Your task to perform on an android device: see tabs open on other devices in the chrome app Image 0: 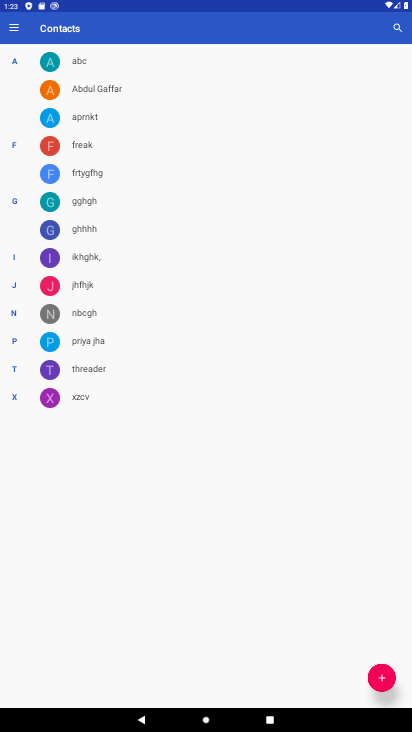
Step 0: press home button
Your task to perform on an android device: see tabs open on other devices in the chrome app Image 1: 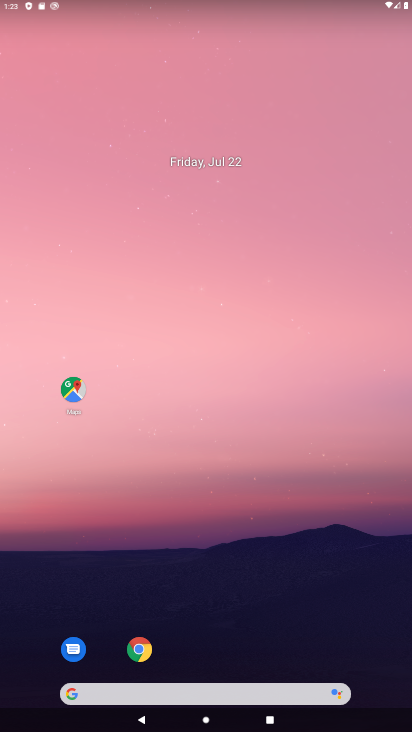
Step 1: click (139, 656)
Your task to perform on an android device: see tabs open on other devices in the chrome app Image 2: 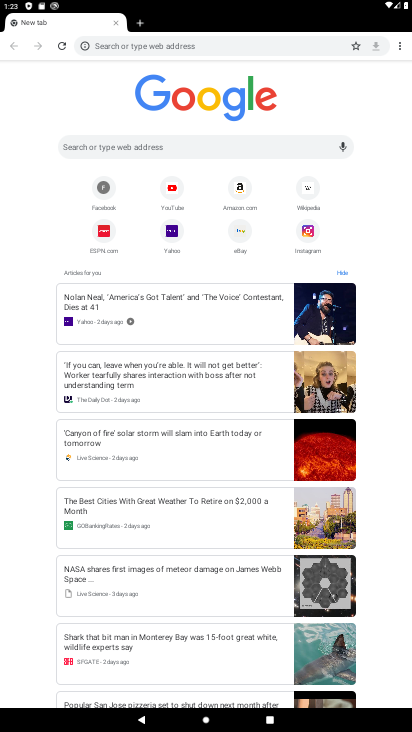
Step 2: click (402, 46)
Your task to perform on an android device: see tabs open on other devices in the chrome app Image 3: 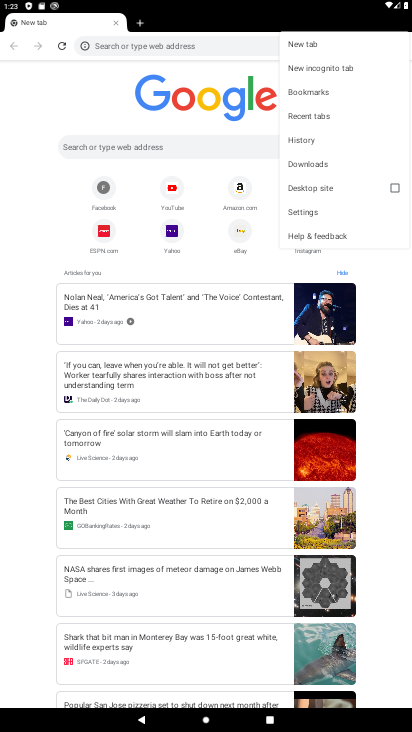
Step 3: click (303, 118)
Your task to perform on an android device: see tabs open on other devices in the chrome app Image 4: 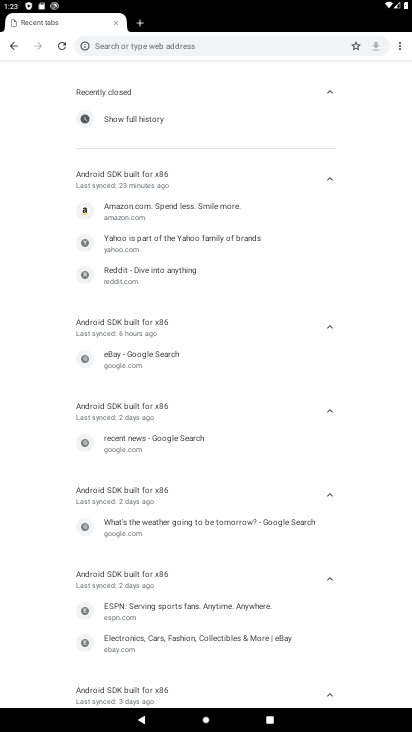
Step 4: task complete